Your task to perform on an android device: change notification settings in the gmail app Image 0: 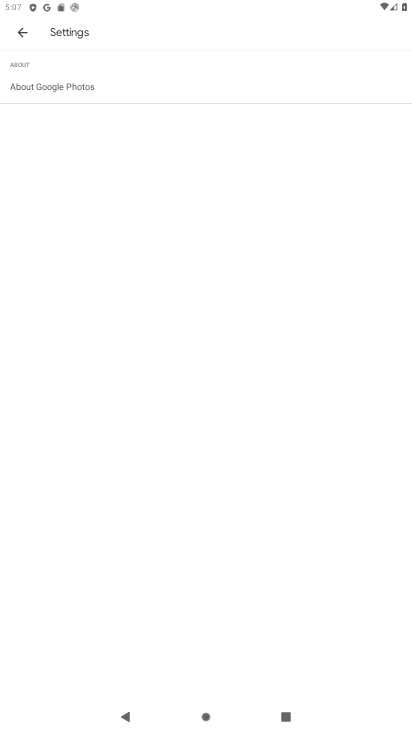
Step 0: press home button
Your task to perform on an android device: change notification settings in the gmail app Image 1: 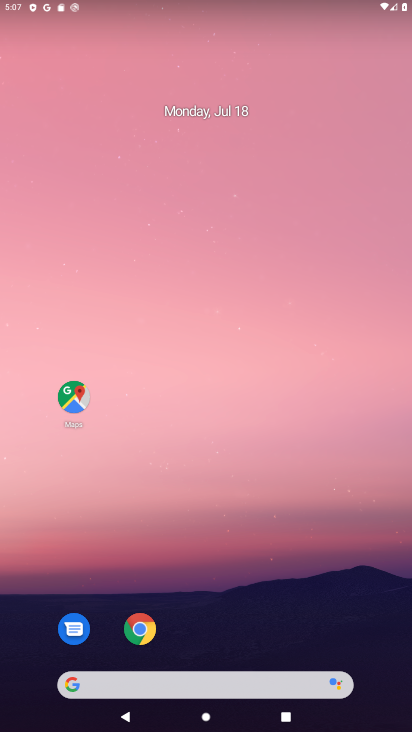
Step 1: drag from (287, 601) to (227, 1)
Your task to perform on an android device: change notification settings in the gmail app Image 2: 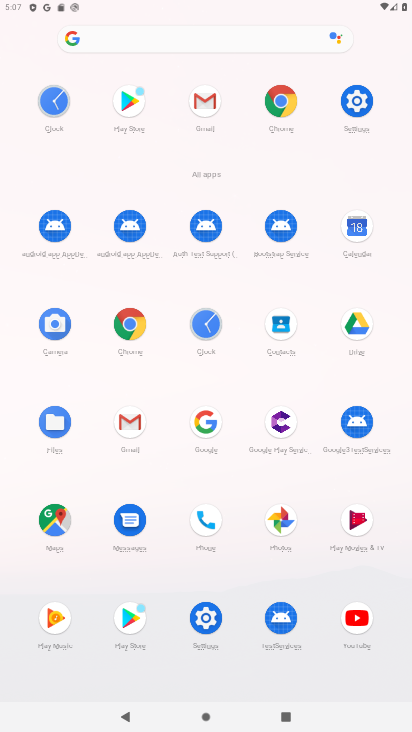
Step 2: click (211, 107)
Your task to perform on an android device: change notification settings in the gmail app Image 3: 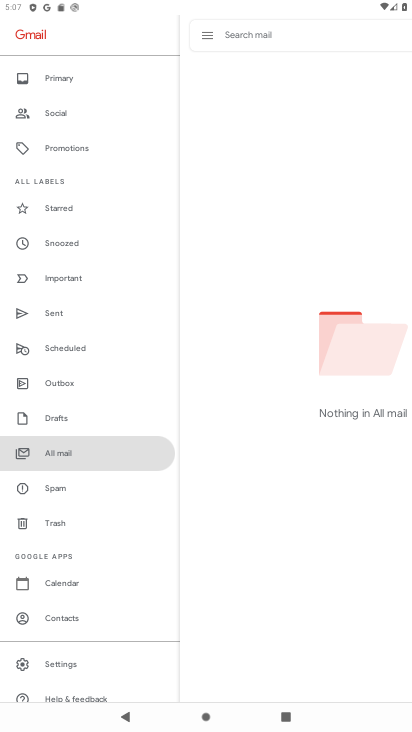
Step 3: click (66, 668)
Your task to perform on an android device: change notification settings in the gmail app Image 4: 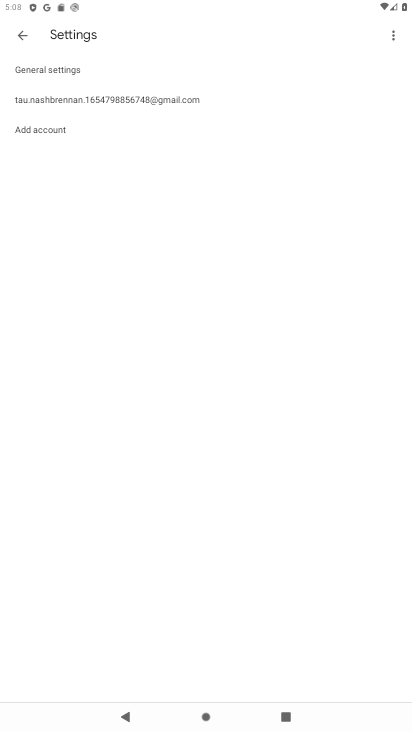
Step 4: click (127, 101)
Your task to perform on an android device: change notification settings in the gmail app Image 5: 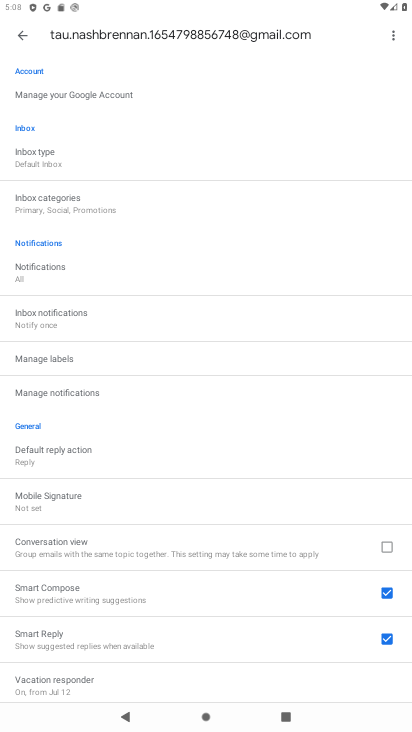
Step 5: click (99, 396)
Your task to perform on an android device: change notification settings in the gmail app Image 6: 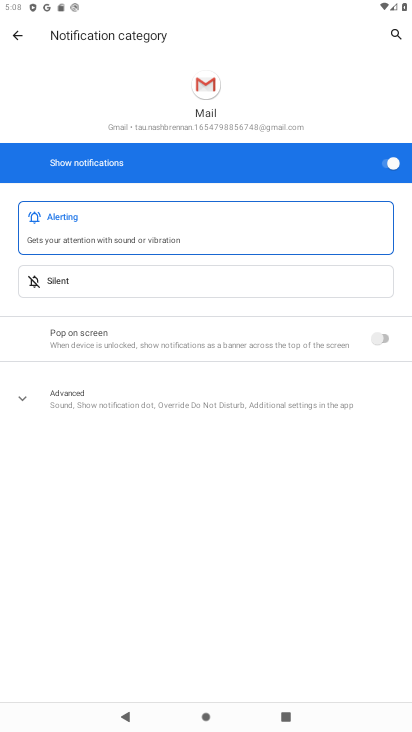
Step 6: click (383, 164)
Your task to perform on an android device: change notification settings in the gmail app Image 7: 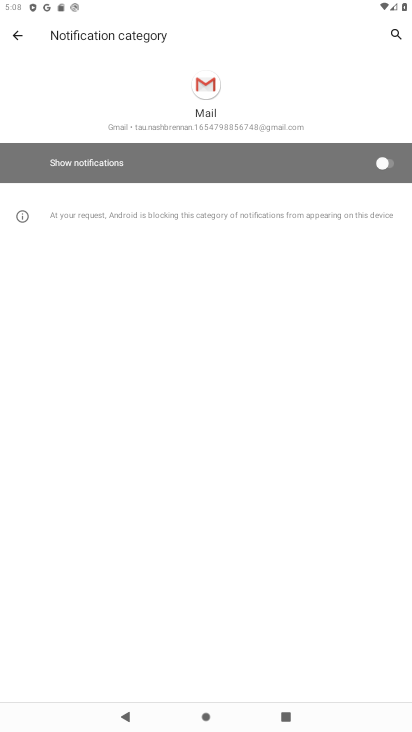
Step 7: task complete